Your task to perform on an android device: turn on bluetooth scan Image 0: 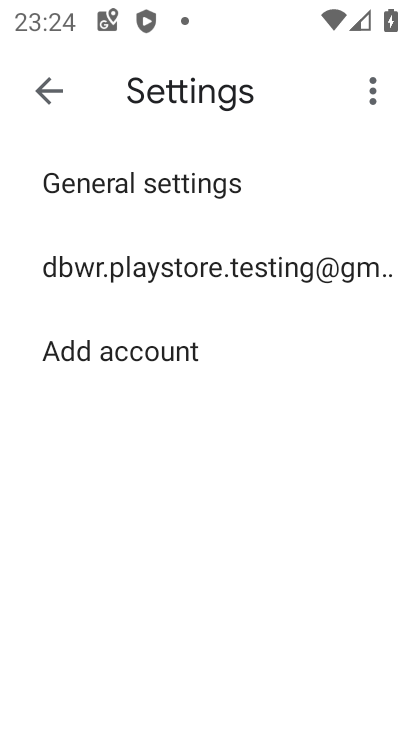
Step 0: press home button
Your task to perform on an android device: turn on bluetooth scan Image 1: 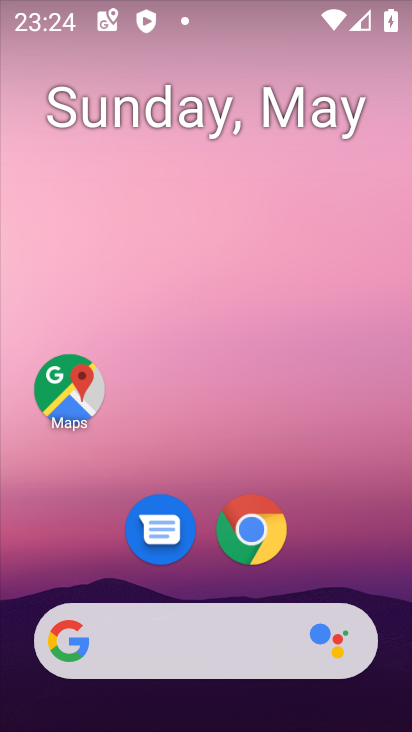
Step 1: drag from (355, 574) to (249, 147)
Your task to perform on an android device: turn on bluetooth scan Image 2: 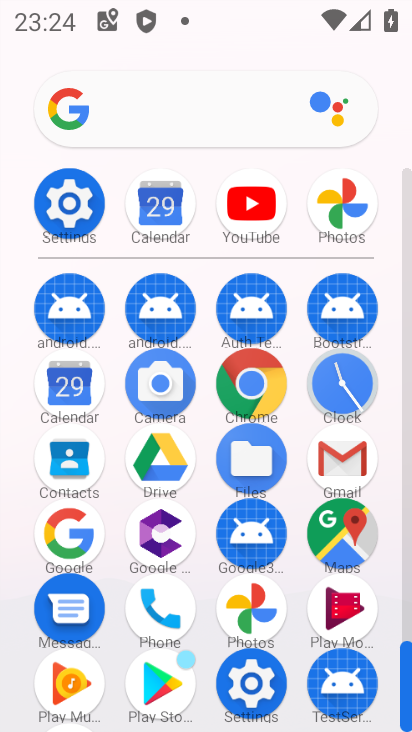
Step 2: click (60, 222)
Your task to perform on an android device: turn on bluetooth scan Image 3: 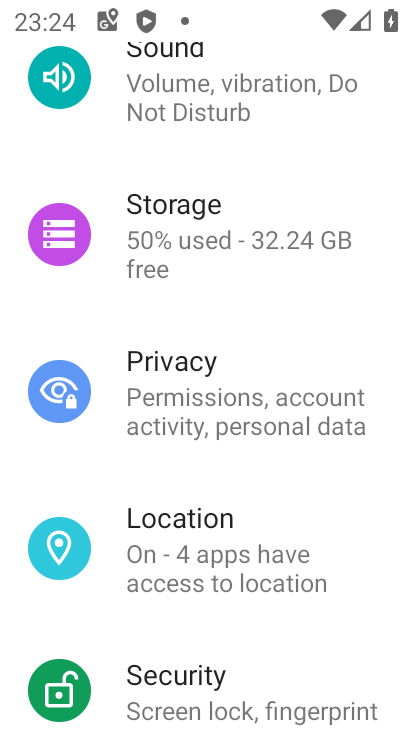
Step 3: click (255, 577)
Your task to perform on an android device: turn on bluetooth scan Image 4: 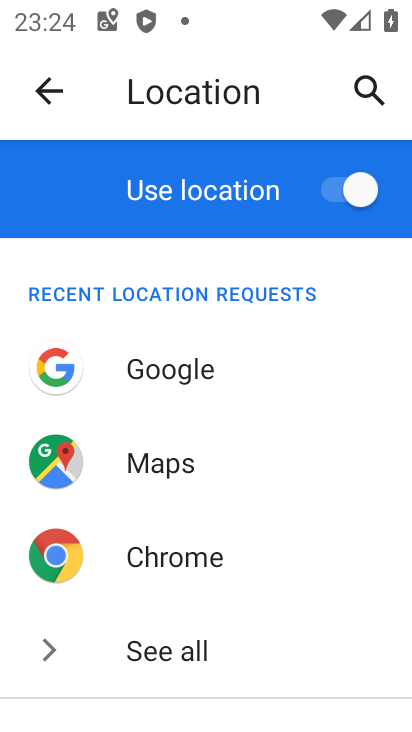
Step 4: drag from (296, 623) to (249, 272)
Your task to perform on an android device: turn on bluetooth scan Image 5: 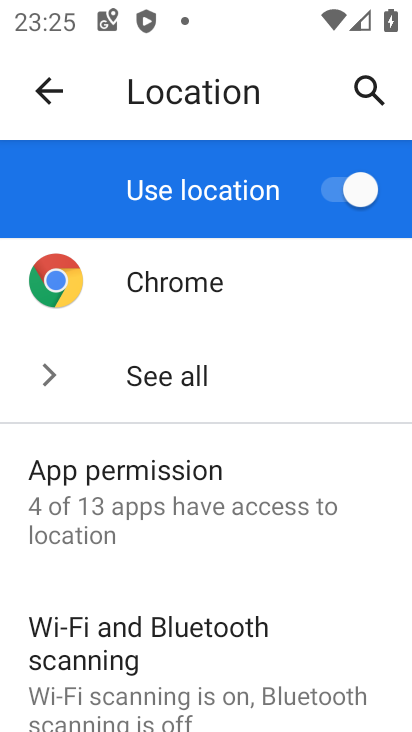
Step 5: click (227, 621)
Your task to perform on an android device: turn on bluetooth scan Image 6: 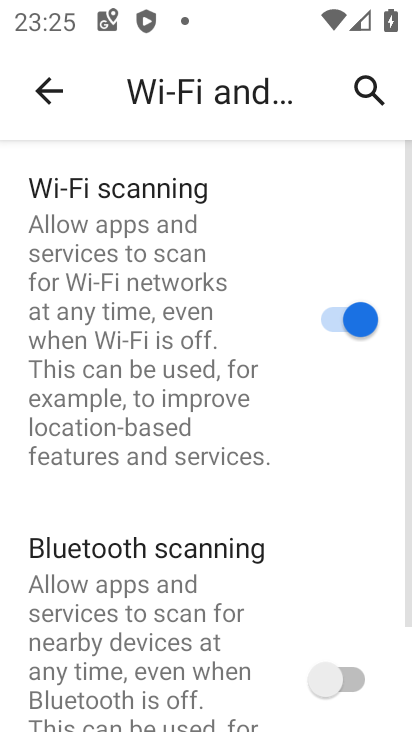
Step 6: click (340, 665)
Your task to perform on an android device: turn on bluetooth scan Image 7: 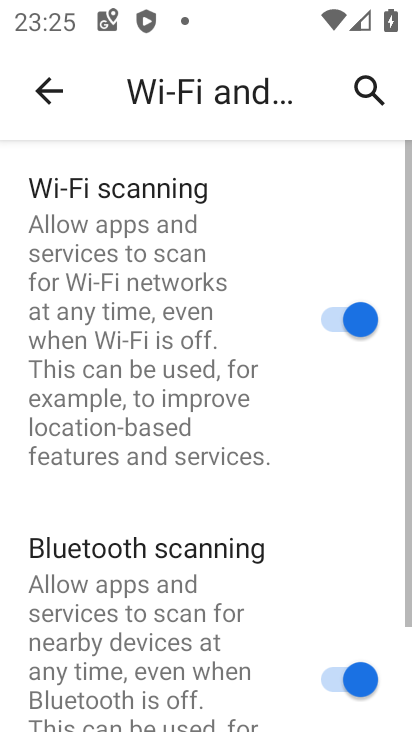
Step 7: task complete